Your task to perform on an android device: Open Google Maps and go to "Timeline" Image 0: 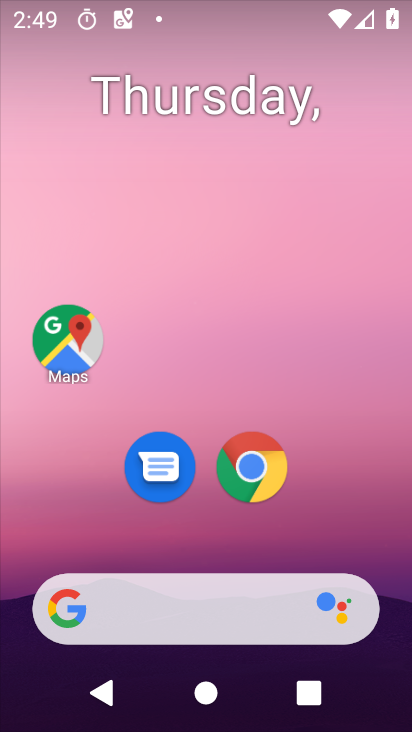
Step 0: drag from (202, 543) to (226, 1)
Your task to perform on an android device: Open Google Maps and go to "Timeline" Image 1: 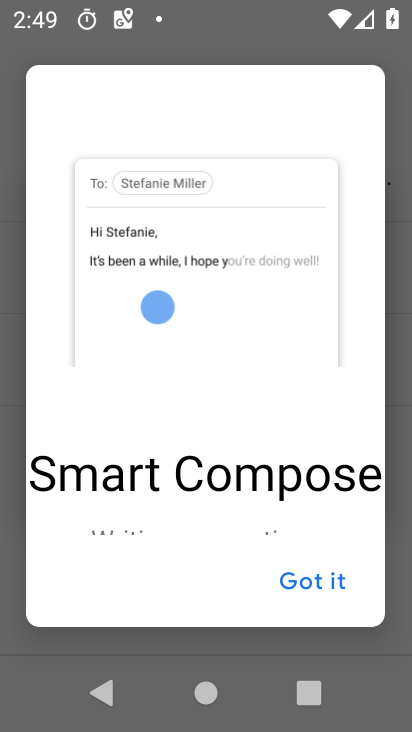
Step 1: press home button
Your task to perform on an android device: Open Google Maps and go to "Timeline" Image 2: 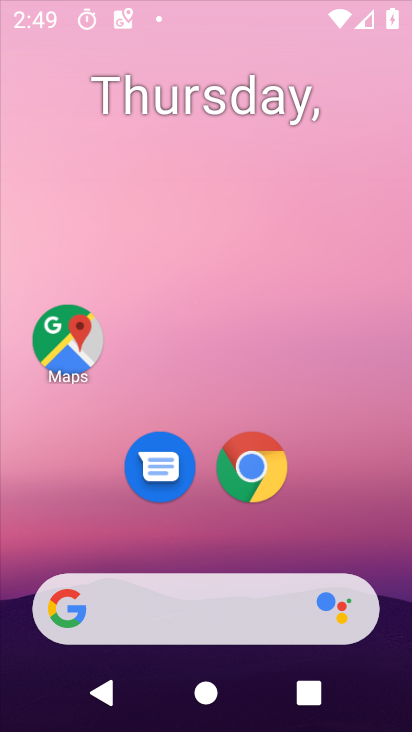
Step 2: drag from (207, 577) to (213, 97)
Your task to perform on an android device: Open Google Maps and go to "Timeline" Image 3: 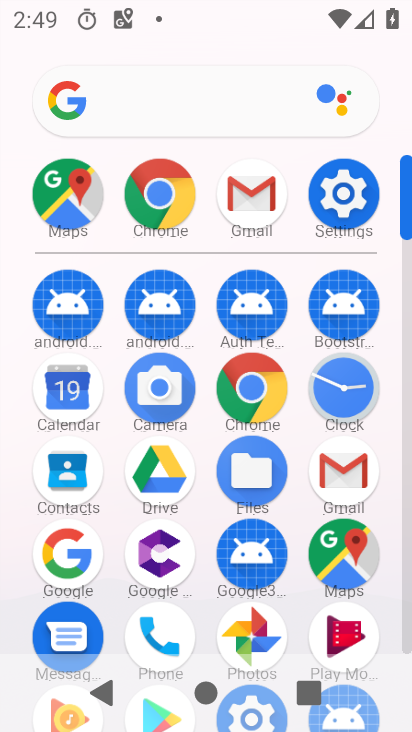
Step 3: click (325, 571)
Your task to perform on an android device: Open Google Maps and go to "Timeline" Image 4: 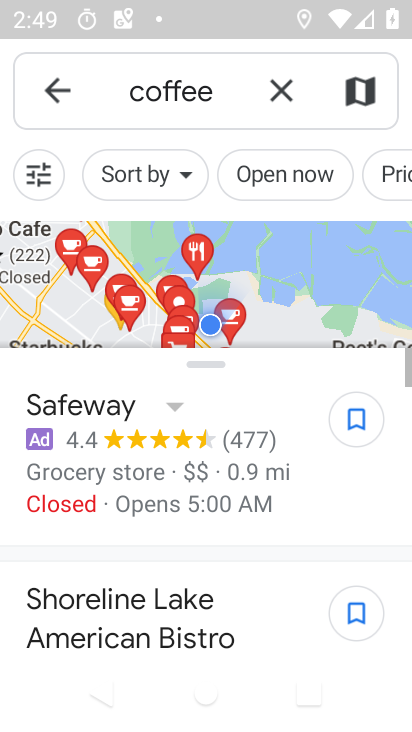
Step 4: click (30, 92)
Your task to perform on an android device: Open Google Maps and go to "Timeline" Image 5: 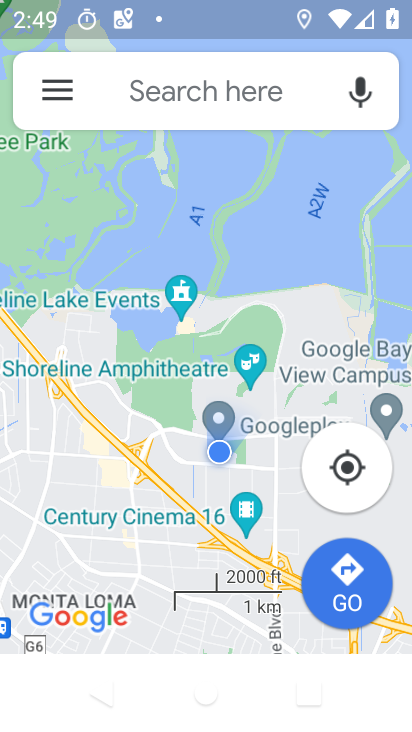
Step 5: click (50, 93)
Your task to perform on an android device: Open Google Maps and go to "Timeline" Image 6: 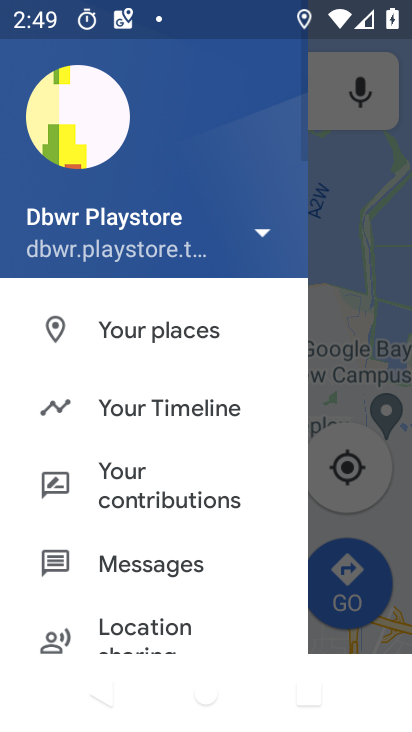
Step 6: click (132, 410)
Your task to perform on an android device: Open Google Maps and go to "Timeline" Image 7: 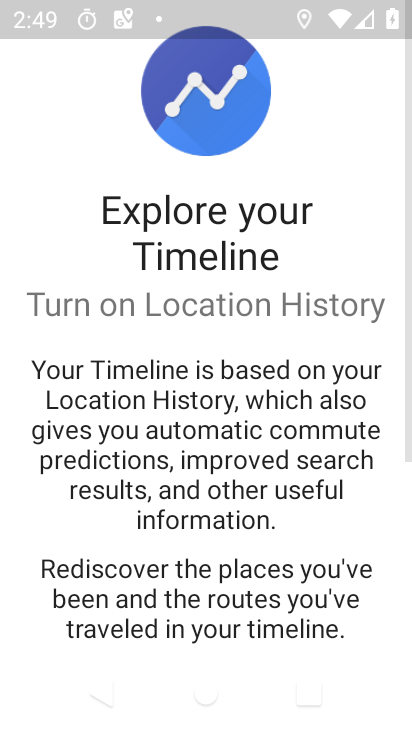
Step 7: drag from (204, 522) to (274, 260)
Your task to perform on an android device: Open Google Maps and go to "Timeline" Image 8: 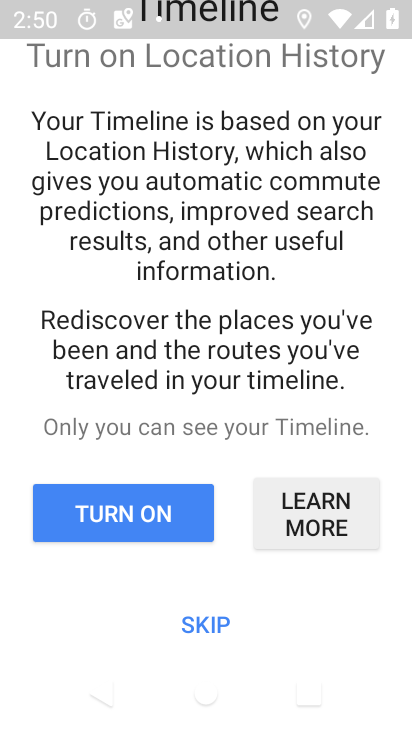
Step 8: drag from (217, 573) to (265, 147)
Your task to perform on an android device: Open Google Maps and go to "Timeline" Image 9: 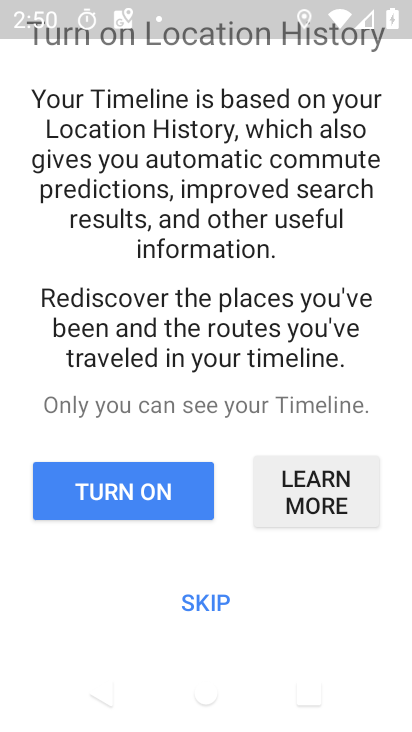
Step 9: click (158, 496)
Your task to perform on an android device: Open Google Maps and go to "Timeline" Image 10: 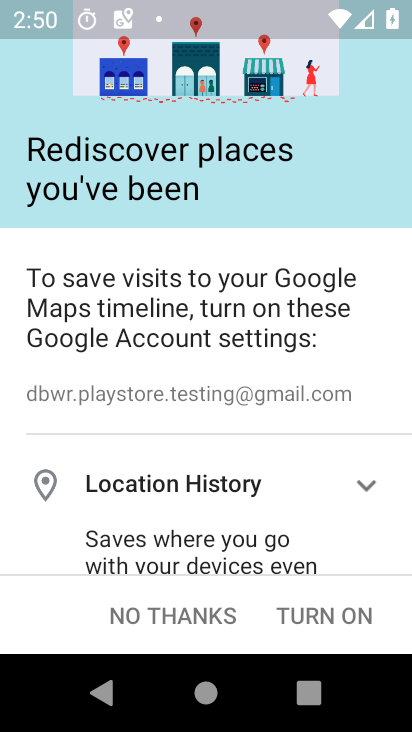
Step 10: drag from (191, 496) to (245, 114)
Your task to perform on an android device: Open Google Maps and go to "Timeline" Image 11: 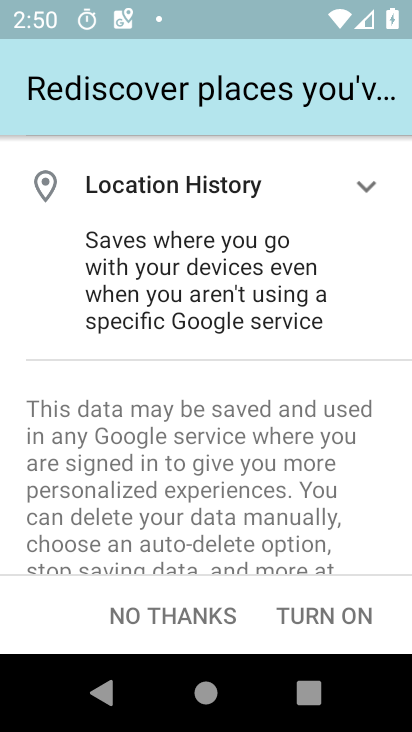
Step 11: click (315, 608)
Your task to perform on an android device: Open Google Maps and go to "Timeline" Image 12: 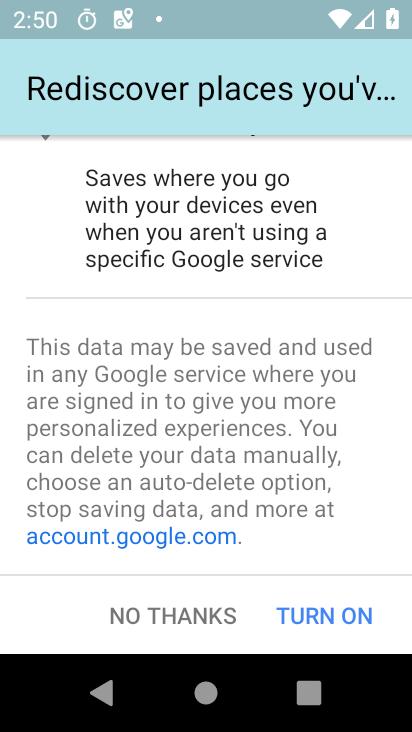
Step 12: click (319, 638)
Your task to perform on an android device: Open Google Maps and go to "Timeline" Image 13: 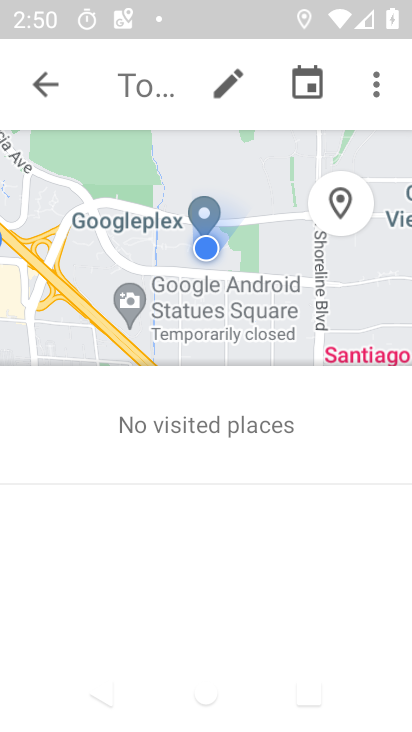
Step 13: task complete